Your task to perform on an android device: Search for sushi restaurants on Maps Image 0: 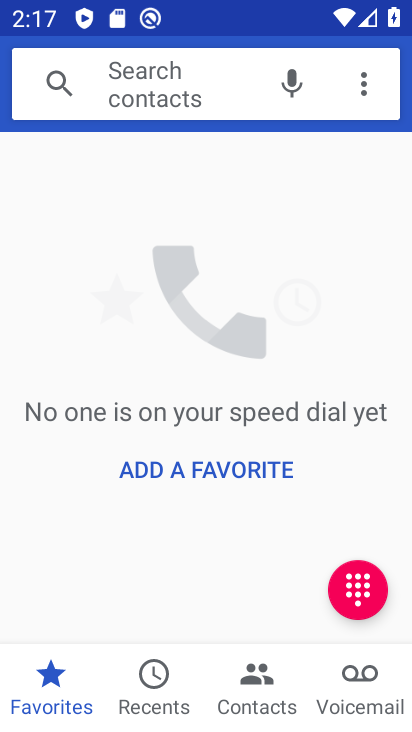
Step 0: press back button
Your task to perform on an android device: Search for sushi restaurants on Maps Image 1: 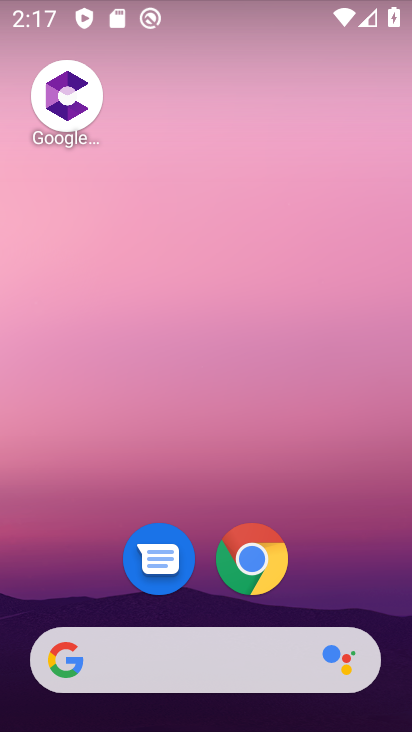
Step 1: drag from (175, 606) to (284, 131)
Your task to perform on an android device: Search for sushi restaurants on Maps Image 2: 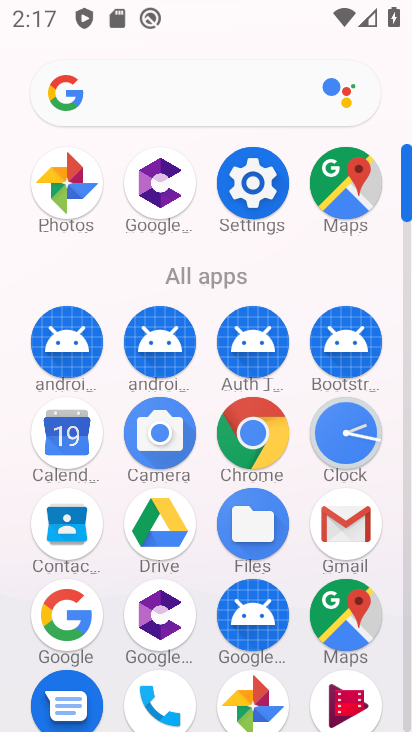
Step 2: click (352, 178)
Your task to perform on an android device: Search for sushi restaurants on Maps Image 3: 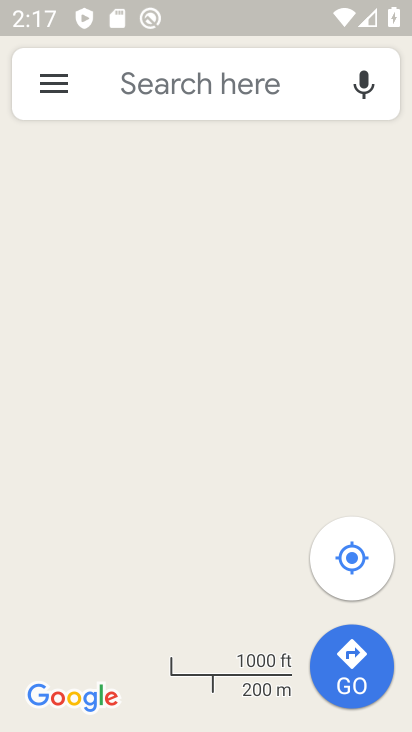
Step 3: click (200, 101)
Your task to perform on an android device: Search for sushi restaurants on Maps Image 4: 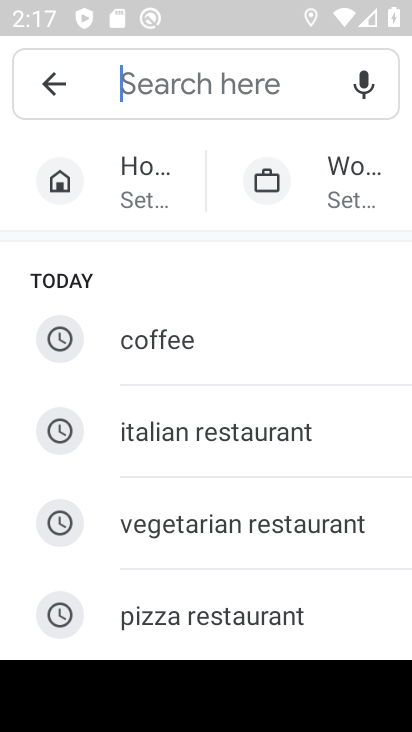
Step 4: type "sushi restaurants"
Your task to perform on an android device: Search for sushi restaurants on Maps Image 5: 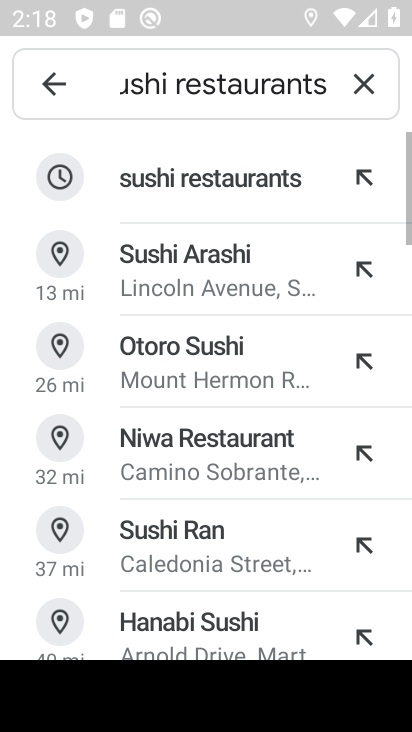
Step 5: click (206, 184)
Your task to perform on an android device: Search for sushi restaurants on Maps Image 6: 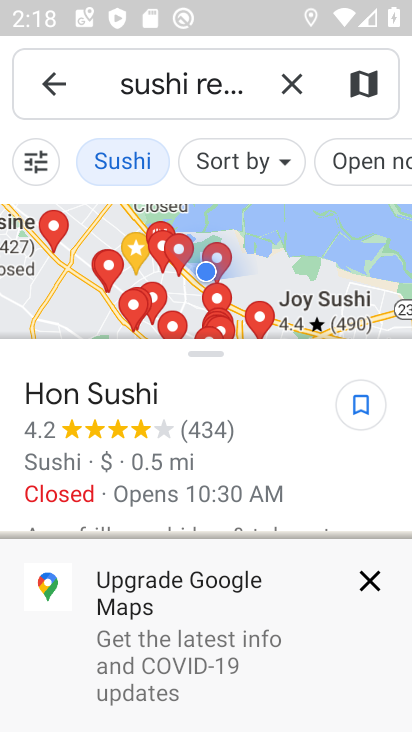
Step 6: click (382, 582)
Your task to perform on an android device: Search for sushi restaurants on Maps Image 7: 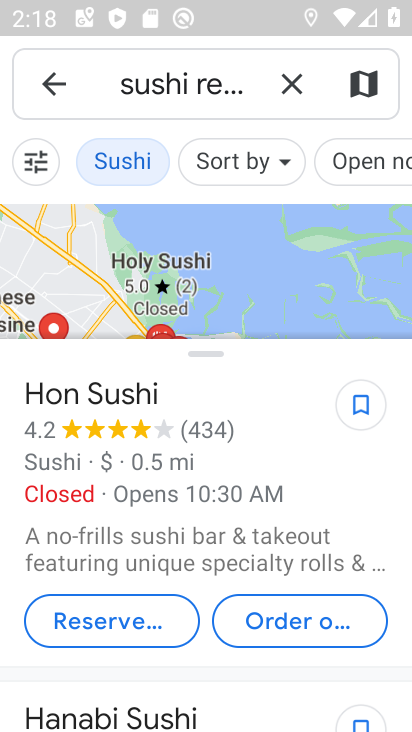
Step 7: task complete